Your task to perform on an android device: Find coffee shops on Maps Image 0: 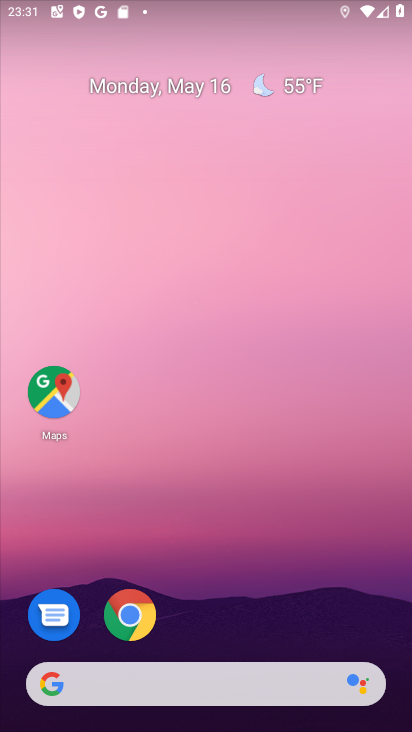
Step 0: drag from (222, 643) to (154, 45)
Your task to perform on an android device: Find coffee shops on Maps Image 1: 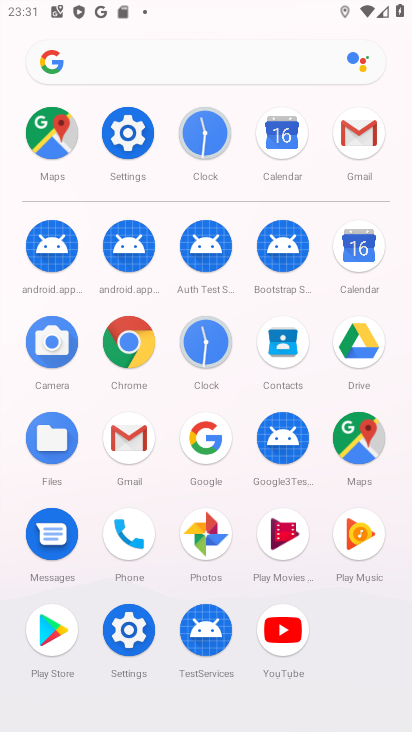
Step 1: click (355, 446)
Your task to perform on an android device: Find coffee shops on Maps Image 2: 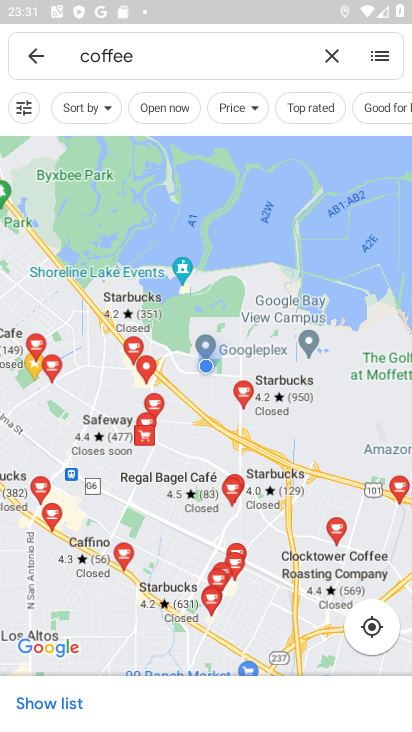
Step 2: task complete